Your task to perform on an android device: See recent photos Image 0: 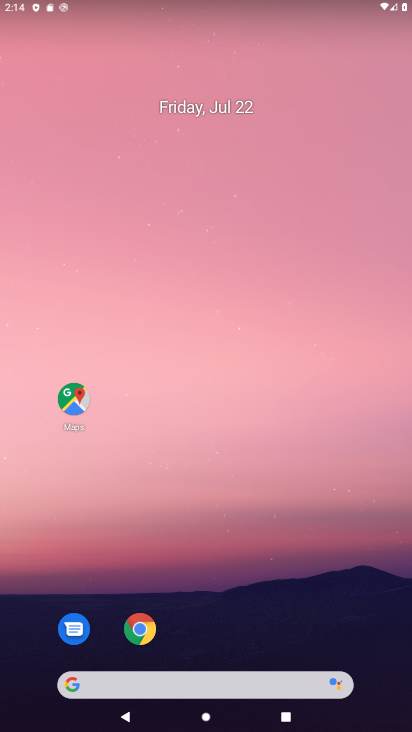
Step 0: drag from (200, 637) to (173, 190)
Your task to perform on an android device: See recent photos Image 1: 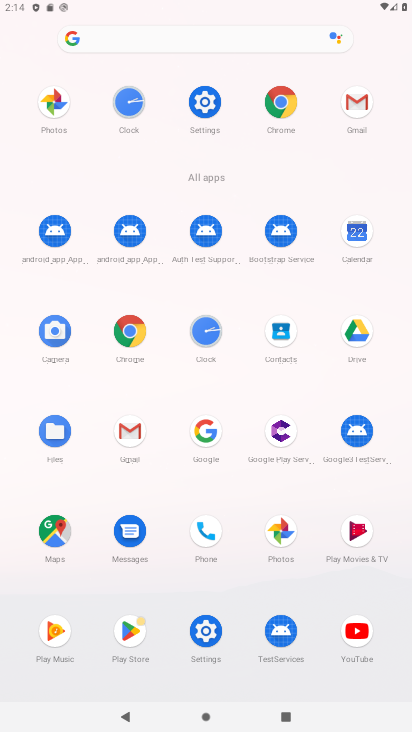
Step 1: click (43, 103)
Your task to perform on an android device: See recent photos Image 2: 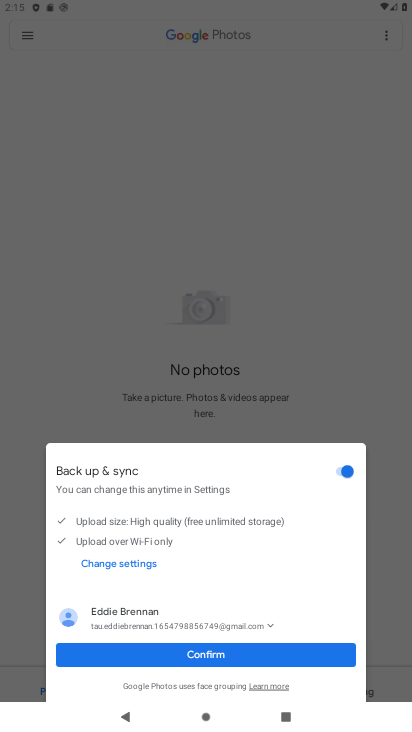
Step 2: task complete